Your task to perform on an android device: Search for the best rated headphones on Amazon. Image 0: 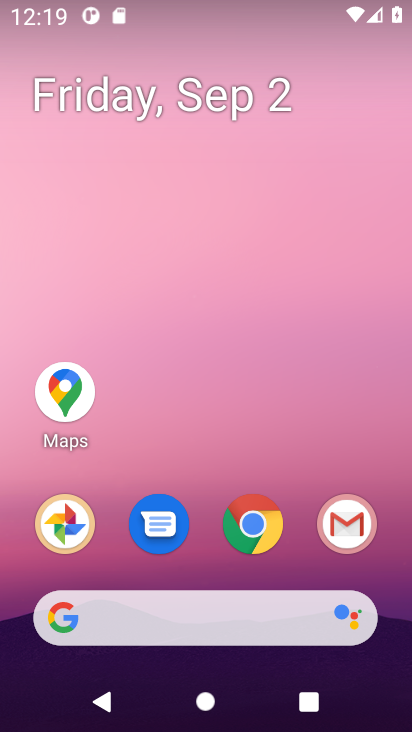
Step 0: press home button
Your task to perform on an android device: Search for the best rated headphones on Amazon. Image 1: 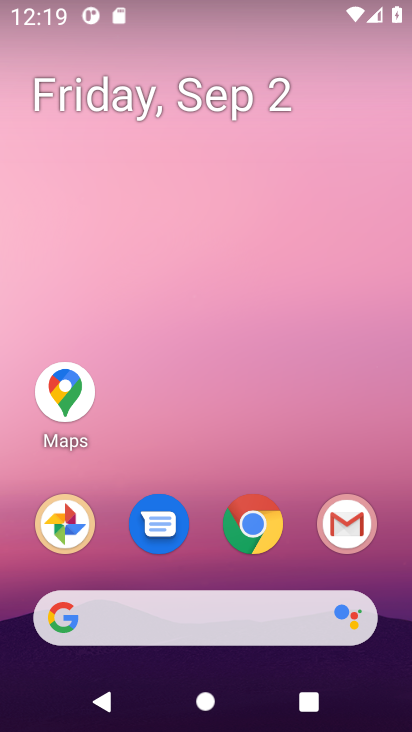
Step 1: click (270, 608)
Your task to perform on an android device: Search for the best rated headphones on Amazon. Image 2: 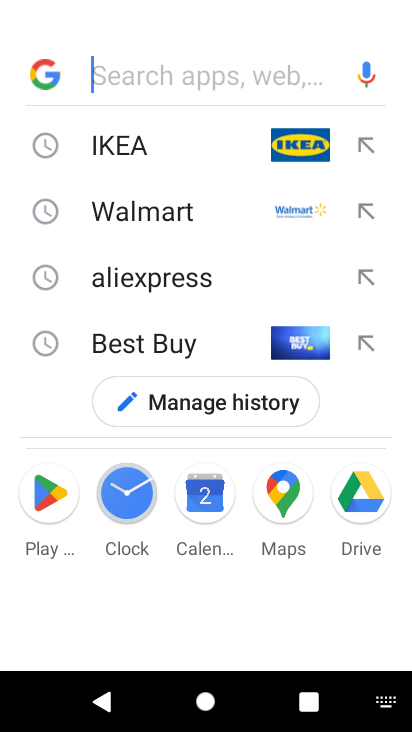
Step 2: press enter
Your task to perform on an android device: Search for the best rated headphones on Amazon. Image 3: 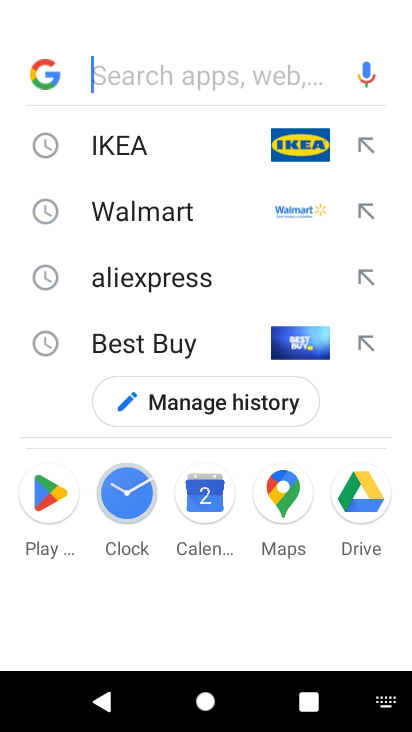
Step 3: type "amazon"
Your task to perform on an android device: Search for the best rated headphones on Amazon. Image 4: 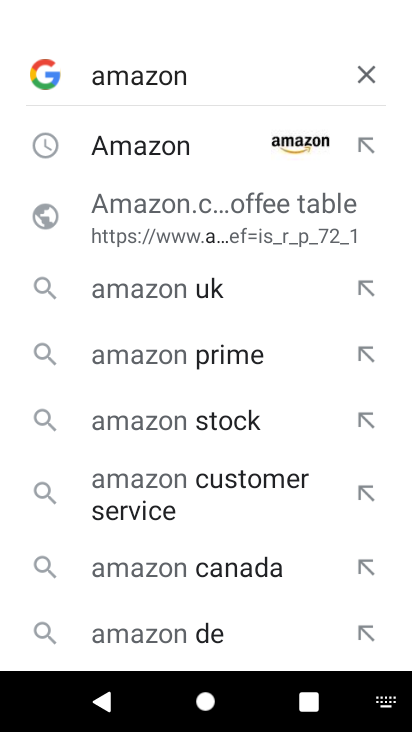
Step 4: click (200, 158)
Your task to perform on an android device: Search for the best rated headphones on Amazon. Image 5: 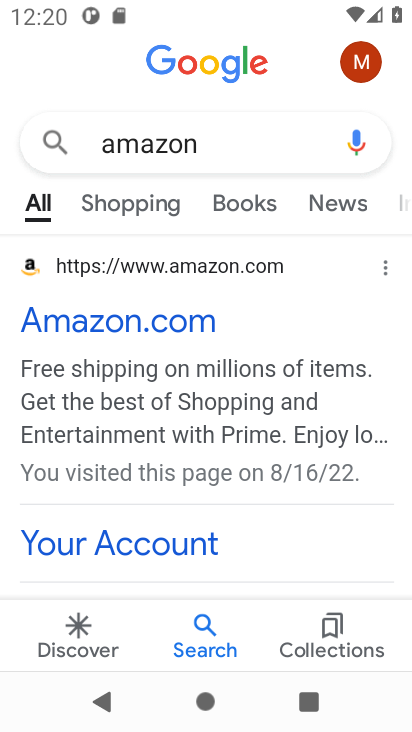
Step 5: click (178, 325)
Your task to perform on an android device: Search for the best rated headphones on Amazon. Image 6: 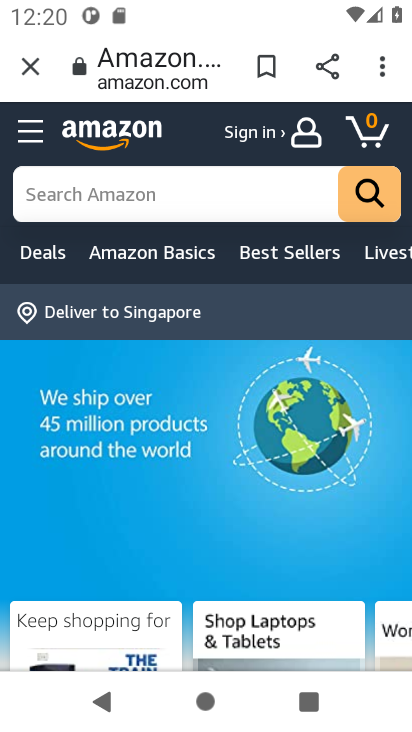
Step 6: click (176, 196)
Your task to perform on an android device: Search for the best rated headphones on Amazon. Image 7: 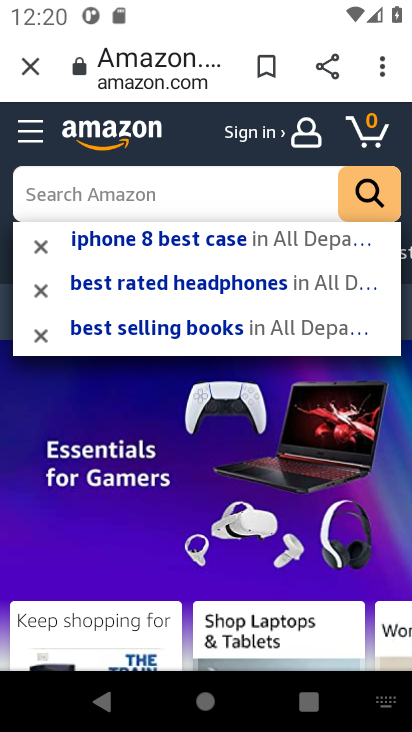
Step 7: click (254, 282)
Your task to perform on an android device: Search for the best rated headphones on Amazon. Image 8: 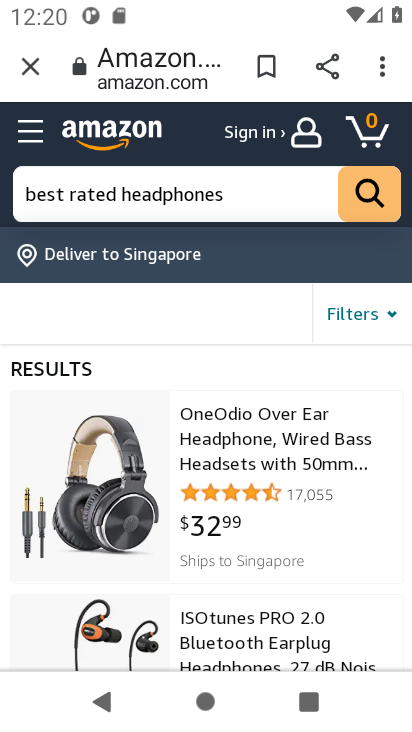
Step 8: task complete